Your task to perform on an android device: Open Maps and search for coffee Image 0: 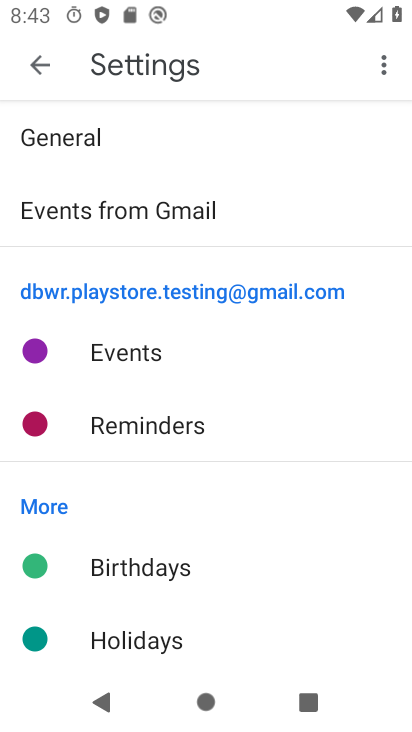
Step 0: press home button
Your task to perform on an android device: Open Maps and search for coffee Image 1: 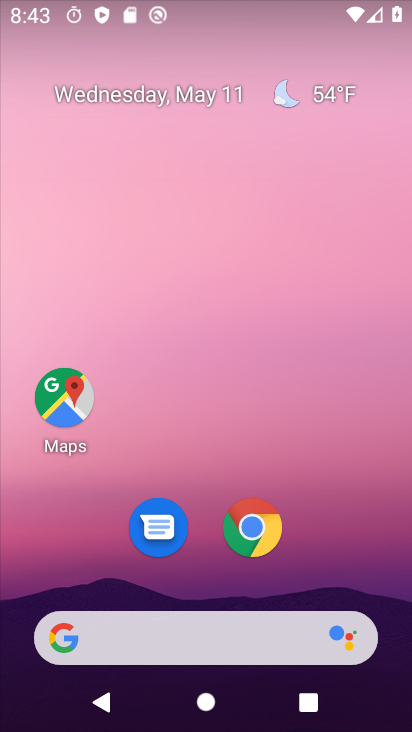
Step 1: click (65, 401)
Your task to perform on an android device: Open Maps and search for coffee Image 2: 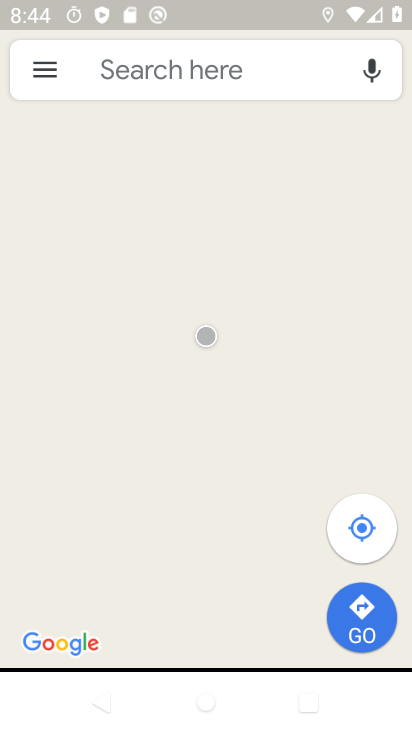
Step 2: click (171, 75)
Your task to perform on an android device: Open Maps and search for coffee Image 3: 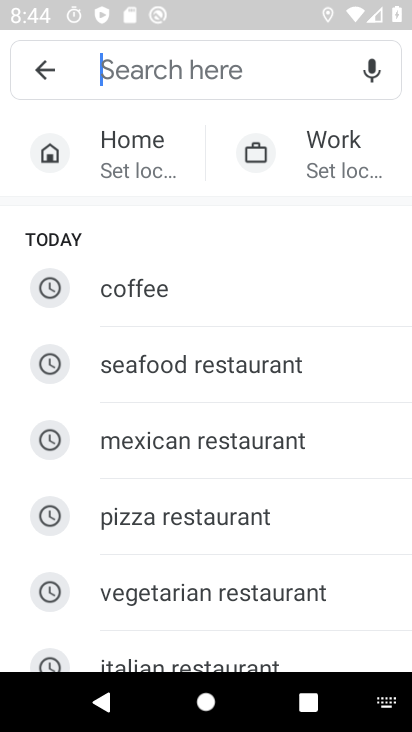
Step 3: drag from (220, 564) to (227, 377)
Your task to perform on an android device: Open Maps and search for coffee Image 4: 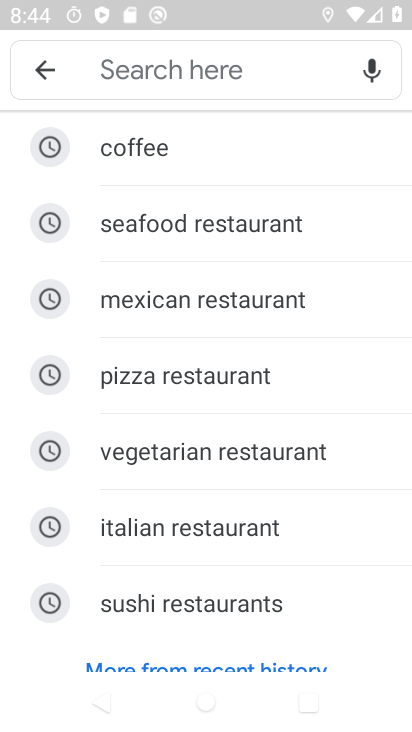
Step 4: click (159, 159)
Your task to perform on an android device: Open Maps and search for coffee Image 5: 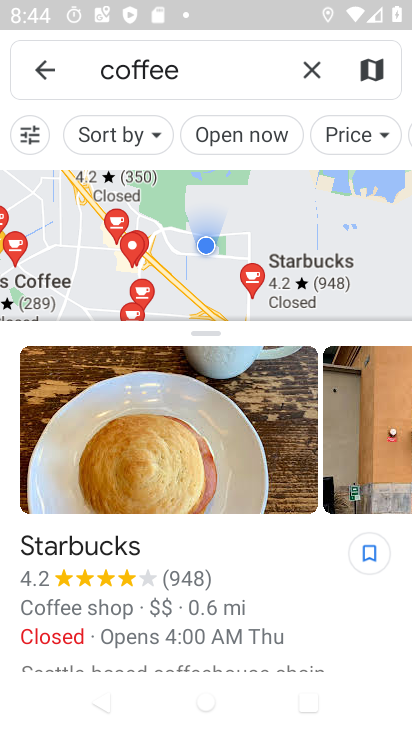
Step 5: task complete